Your task to perform on an android device: Open the web browser Image 0: 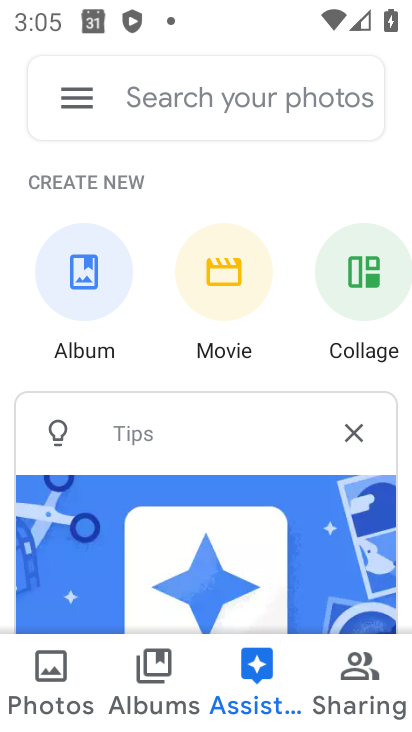
Step 0: press home button
Your task to perform on an android device: Open the web browser Image 1: 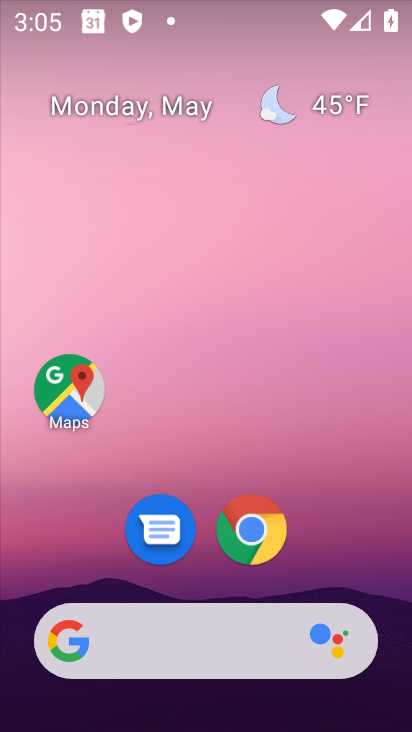
Step 1: click (279, 525)
Your task to perform on an android device: Open the web browser Image 2: 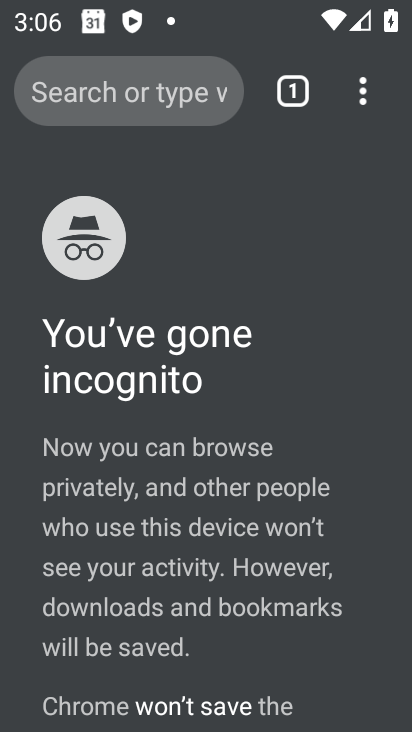
Step 2: task complete